Your task to perform on an android device: remove spam from my inbox in the gmail app Image 0: 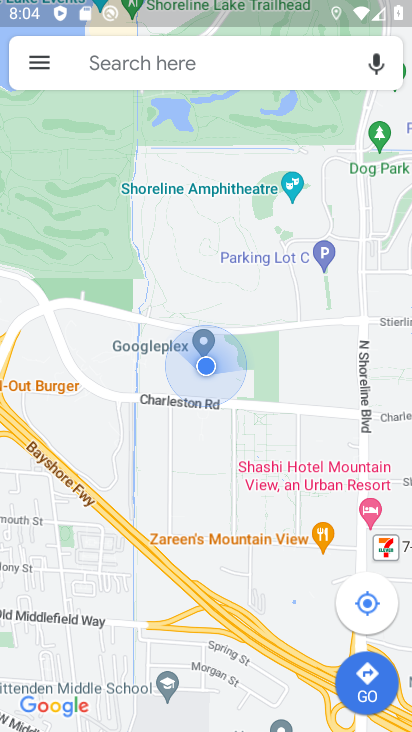
Step 0: press home button
Your task to perform on an android device: remove spam from my inbox in the gmail app Image 1: 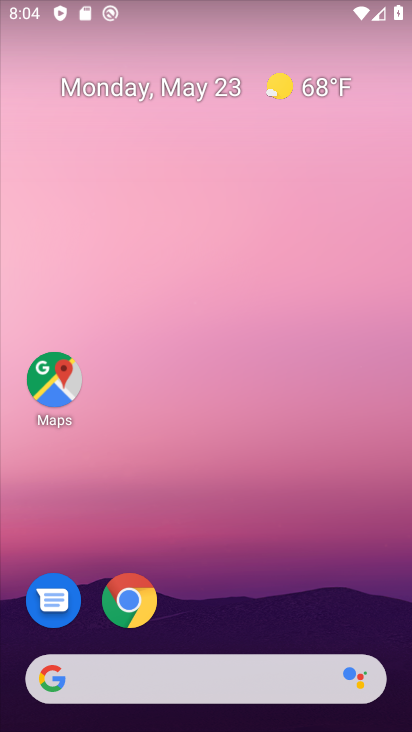
Step 1: drag from (14, 658) to (218, 181)
Your task to perform on an android device: remove spam from my inbox in the gmail app Image 2: 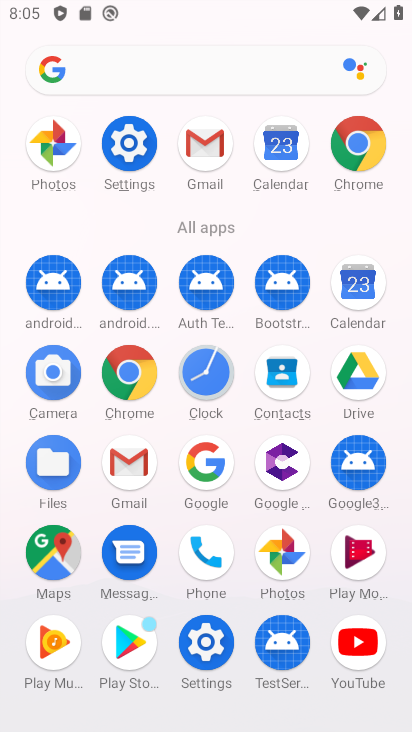
Step 2: click (133, 461)
Your task to perform on an android device: remove spam from my inbox in the gmail app Image 3: 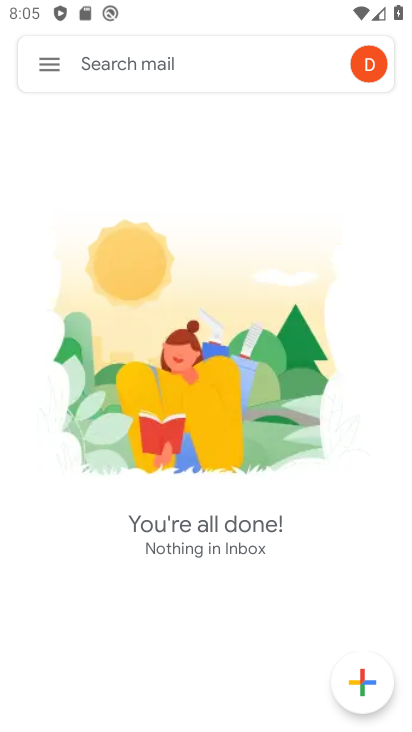
Step 3: click (45, 62)
Your task to perform on an android device: remove spam from my inbox in the gmail app Image 4: 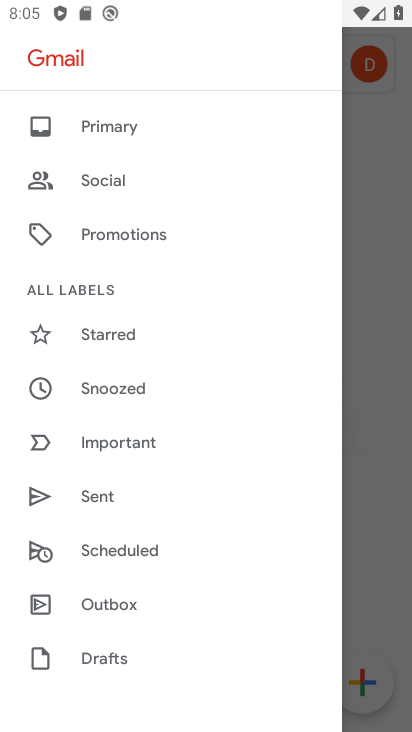
Step 4: drag from (9, 584) to (162, 105)
Your task to perform on an android device: remove spam from my inbox in the gmail app Image 5: 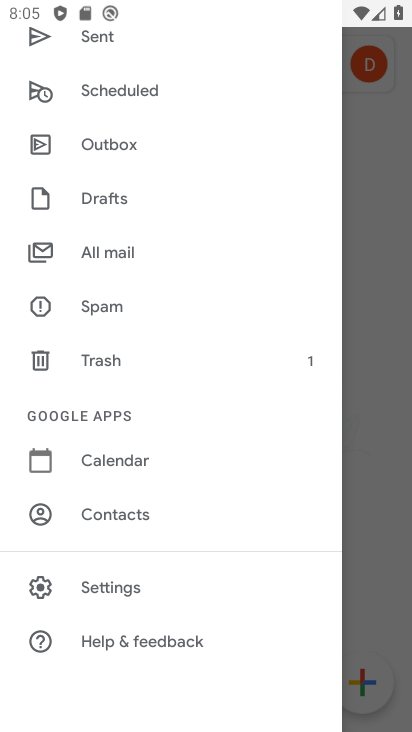
Step 5: click (108, 306)
Your task to perform on an android device: remove spam from my inbox in the gmail app Image 6: 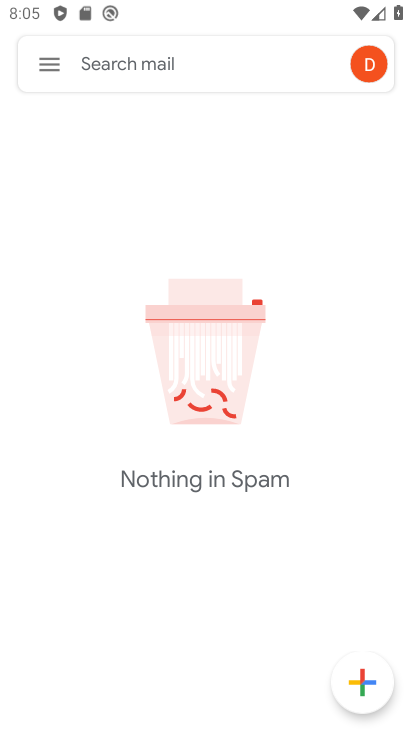
Step 6: task complete